Your task to perform on an android device: Open privacy settings Image 0: 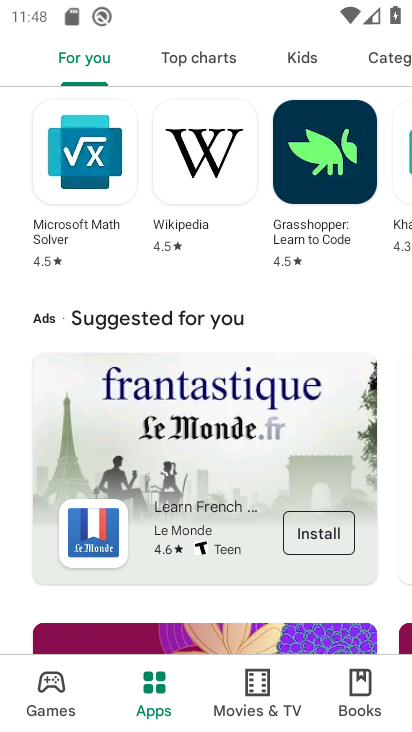
Step 0: press home button
Your task to perform on an android device: Open privacy settings Image 1: 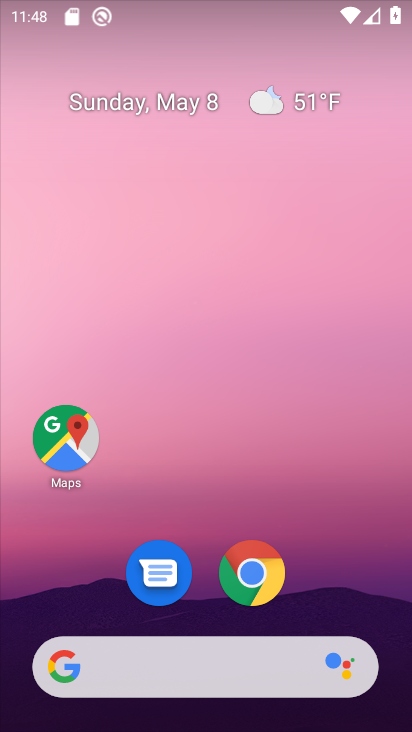
Step 1: drag from (180, 645) to (227, 252)
Your task to perform on an android device: Open privacy settings Image 2: 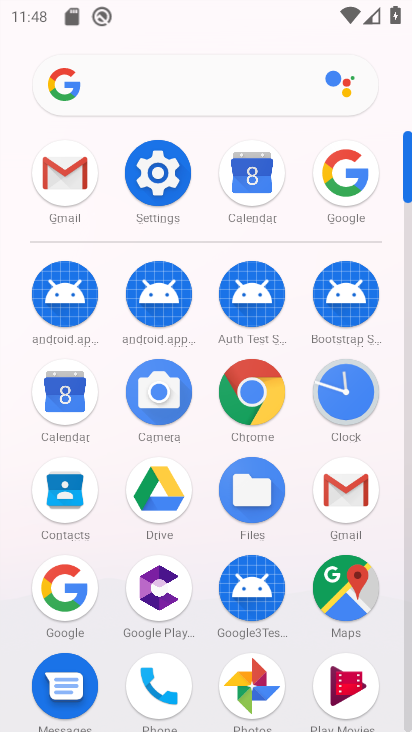
Step 2: click (154, 177)
Your task to perform on an android device: Open privacy settings Image 3: 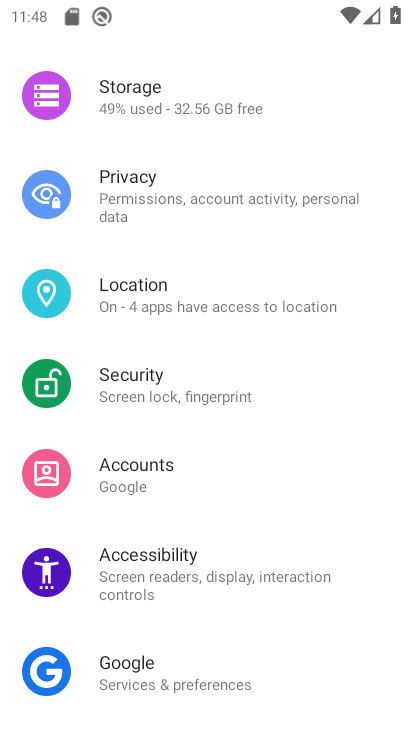
Step 3: drag from (138, 704) to (141, 273)
Your task to perform on an android device: Open privacy settings Image 4: 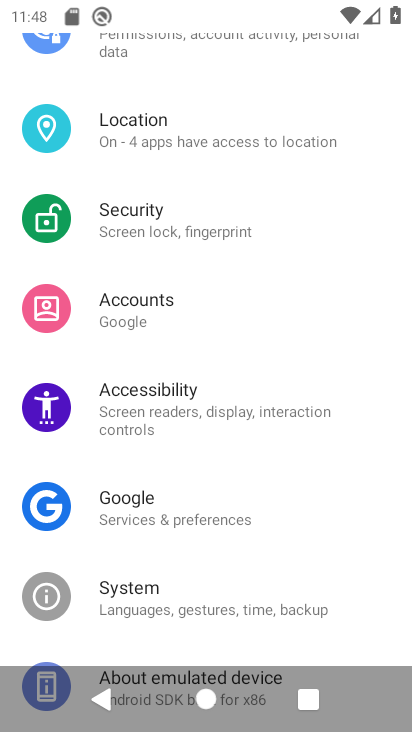
Step 4: drag from (141, 168) to (188, 567)
Your task to perform on an android device: Open privacy settings Image 5: 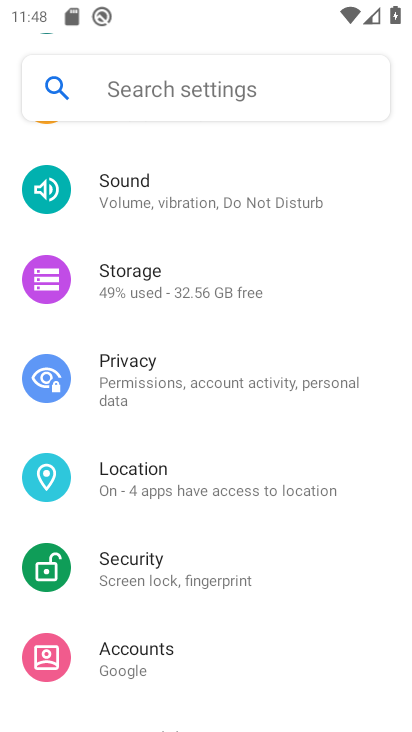
Step 5: click (130, 377)
Your task to perform on an android device: Open privacy settings Image 6: 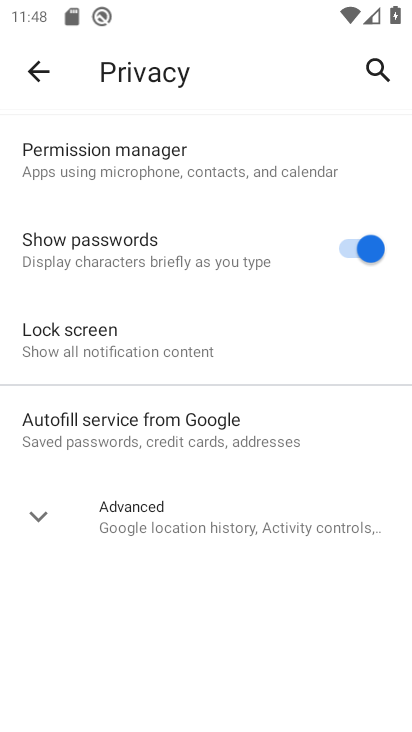
Step 6: click (141, 533)
Your task to perform on an android device: Open privacy settings Image 7: 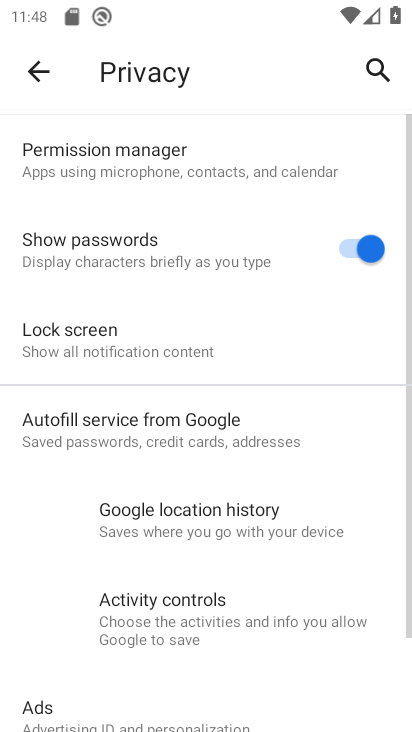
Step 7: task complete